Your task to perform on an android device: turn off translation in the chrome app Image 0: 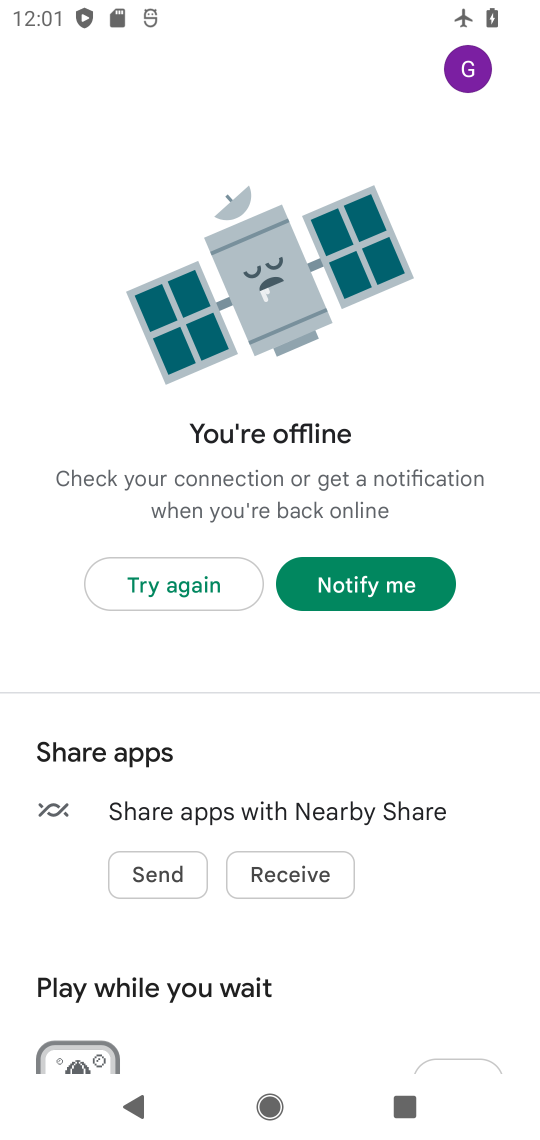
Step 0: drag from (389, 14) to (384, 274)
Your task to perform on an android device: turn off translation in the chrome app Image 1: 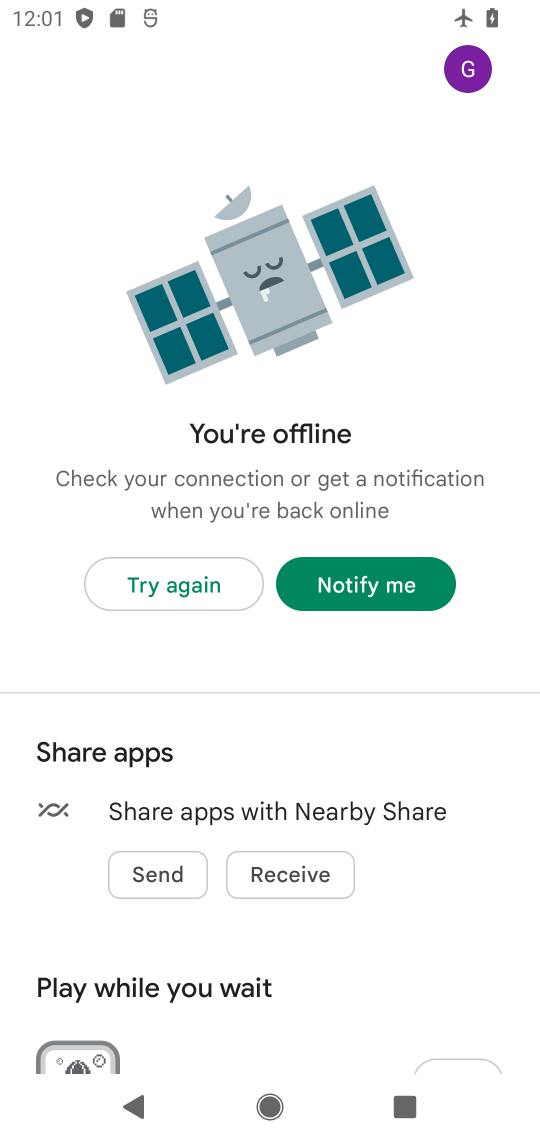
Step 1: press home button
Your task to perform on an android device: turn off translation in the chrome app Image 2: 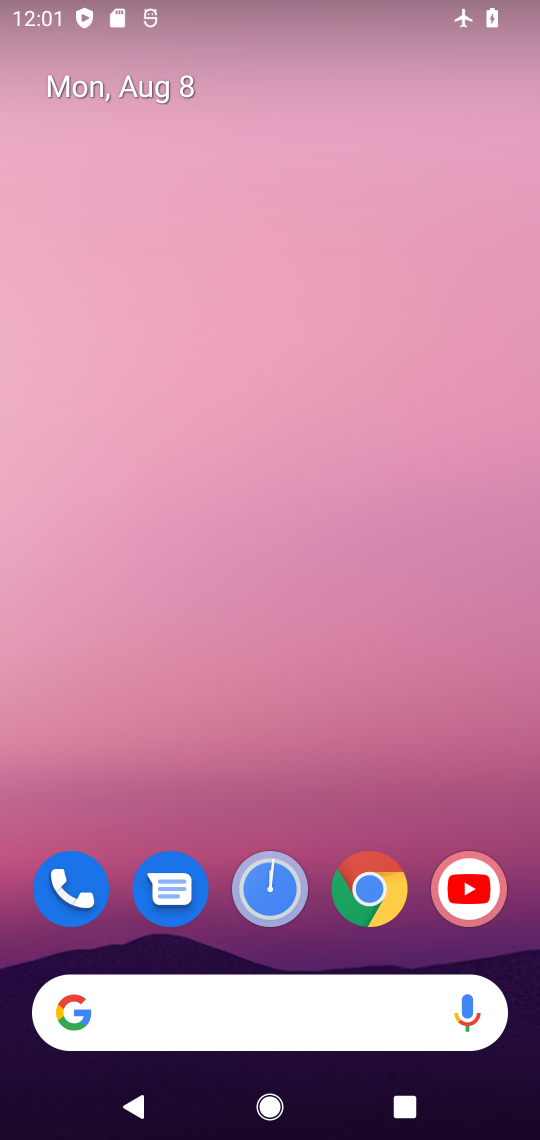
Step 2: click (371, 902)
Your task to perform on an android device: turn off translation in the chrome app Image 3: 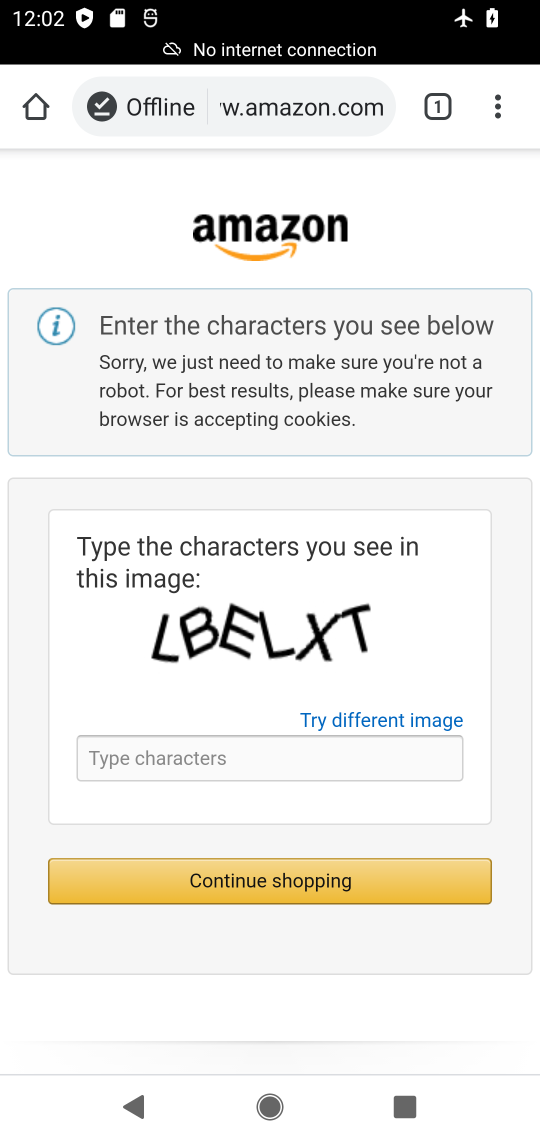
Step 3: click (502, 123)
Your task to perform on an android device: turn off translation in the chrome app Image 4: 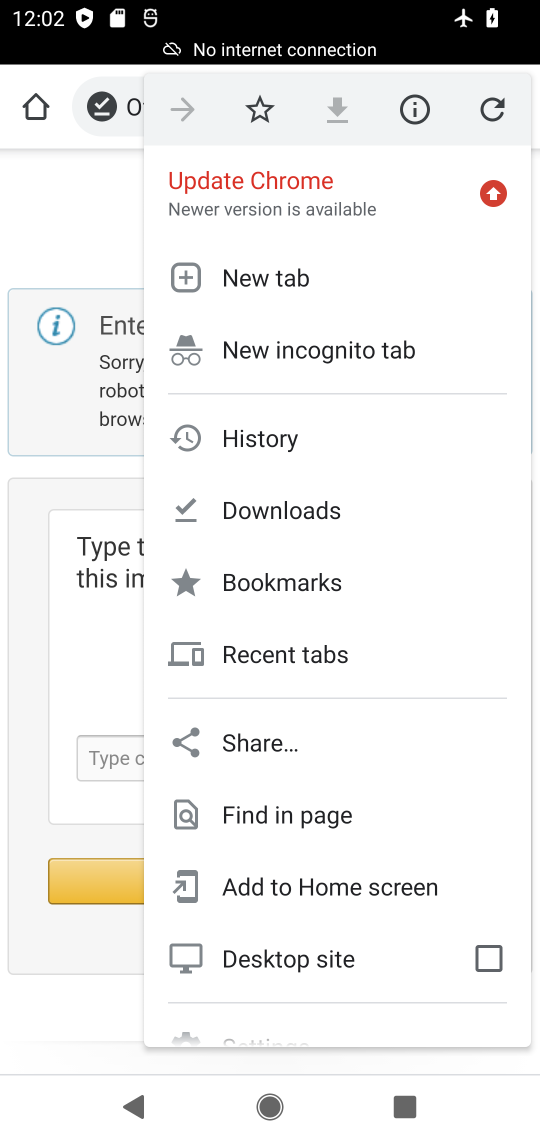
Step 4: drag from (354, 942) to (310, 367)
Your task to perform on an android device: turn off translation in the chrome app Image 5: 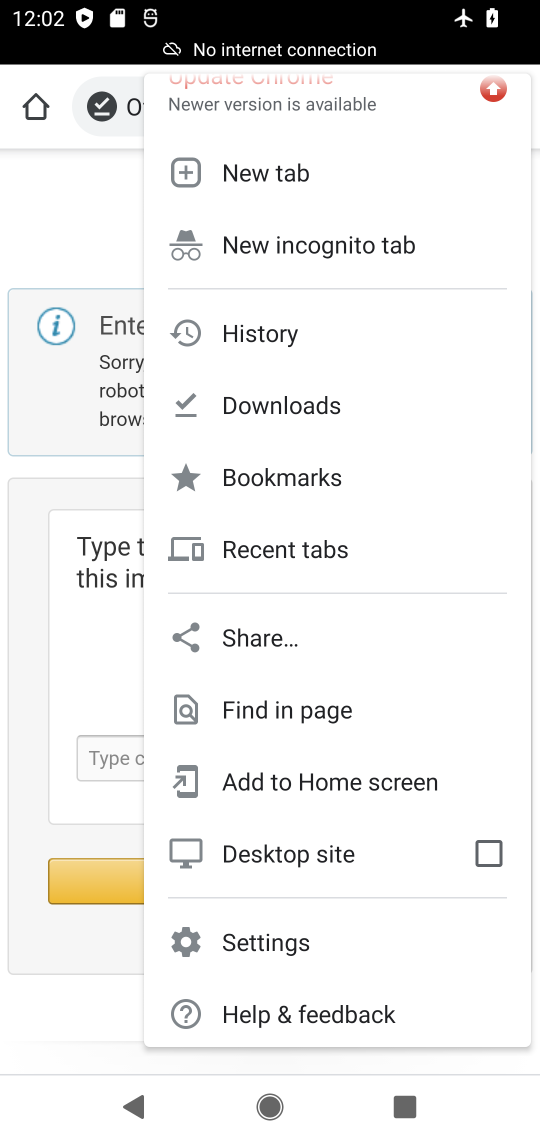
Step 5: click (304, 927)
Your task to perform on an android device: turn off translation in the chrome app Image 6: 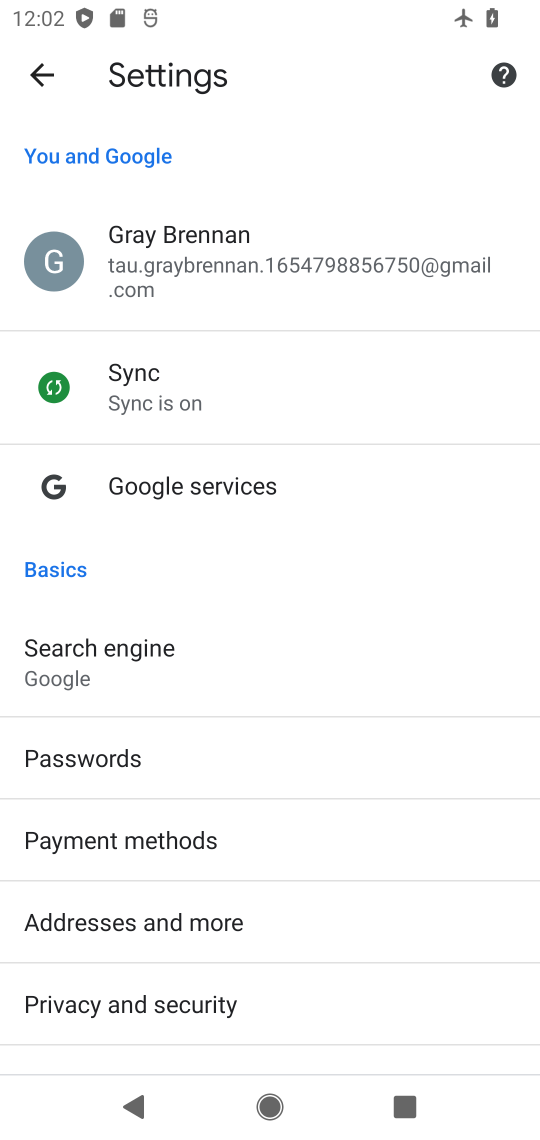
Step 6: drag from (247, 931) to (149, 492)
Your task to perform on an android device: turn off translation in the chrome app Image 7: 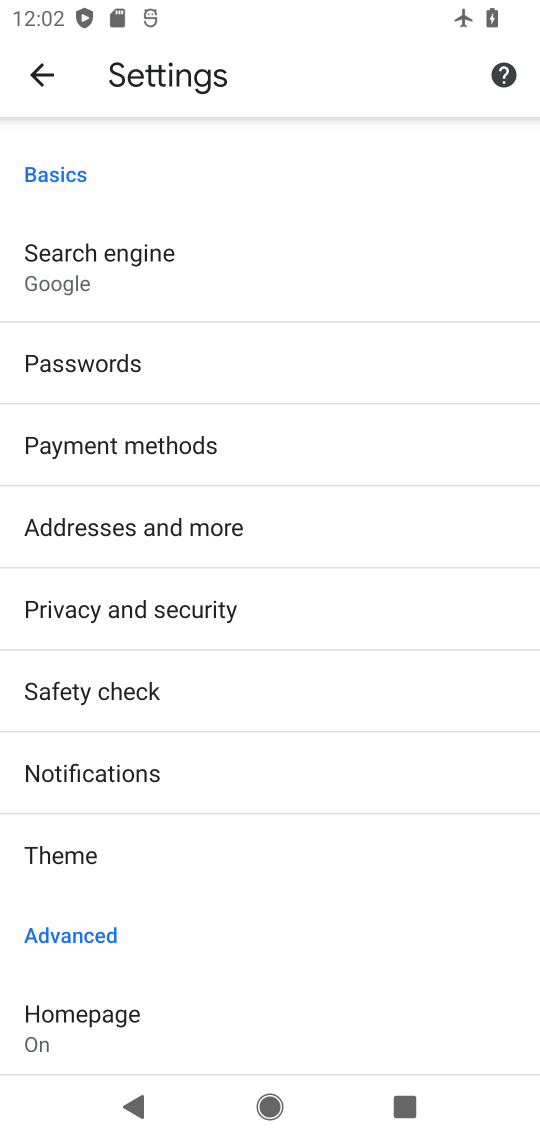
Step 7: drag from (269, 884) to (169, 449)
Your task to perform on an android device: turn off translation in the chrome app Image 8: 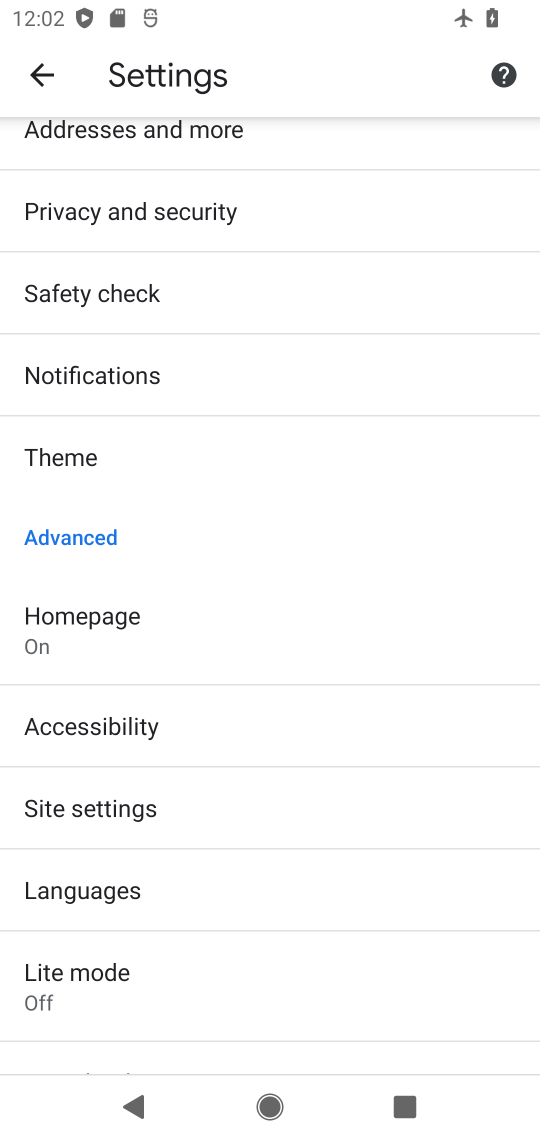
Step 8: click (196, 902)
Your task to perform on an android device: turn off translation in the chrome app Image 9: 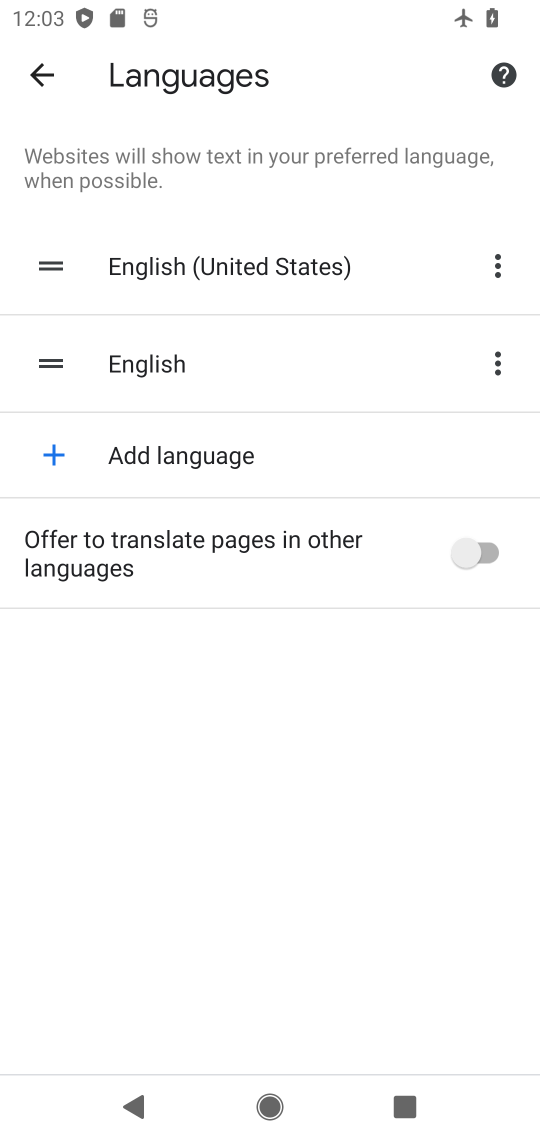
Step 9: task complete